Your task to perform on an android device: Open eBay Image 0: 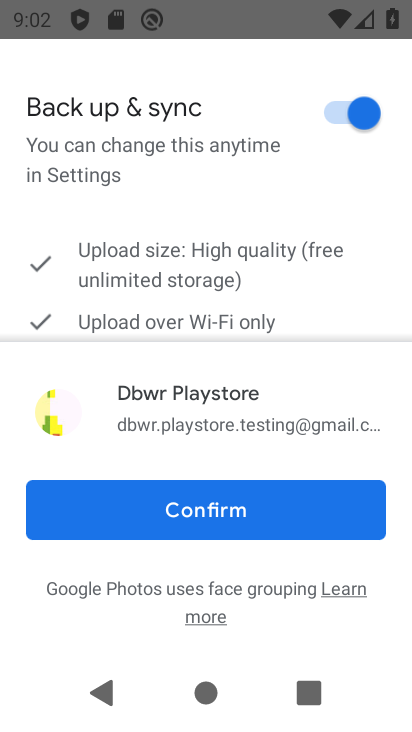
Step 0: press home button
Your task to perform on an android device: Open eBay Image 1: 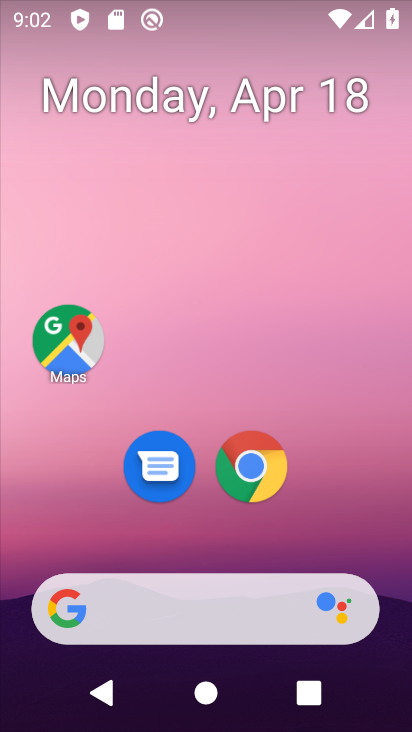
Step 1: click (254, 469)
Your task to perform on an android device: Open eBay Image 2: 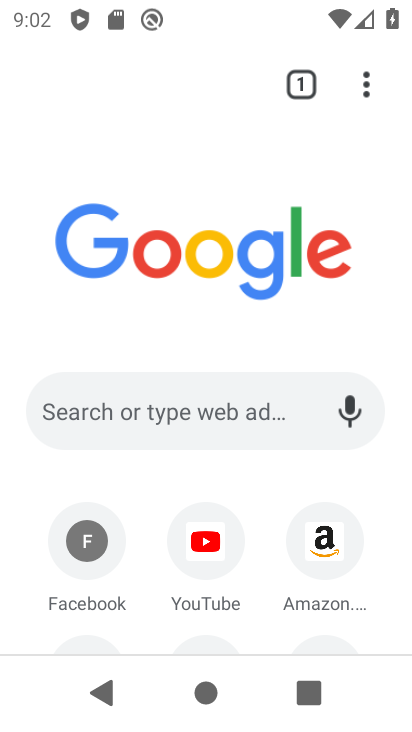
Step 2: drag from (251, 494) to (232, 289)
Your task to perform on an android device: Open eBay Image 3: 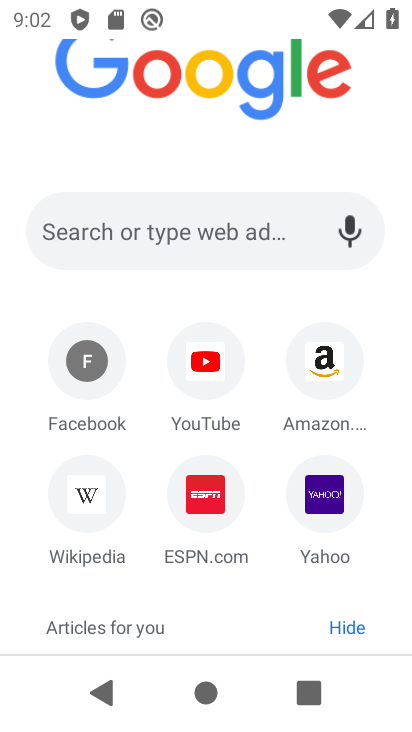
Step 3: click (207, 234)
Your task to perform on an android device: Open eBay Image 4: 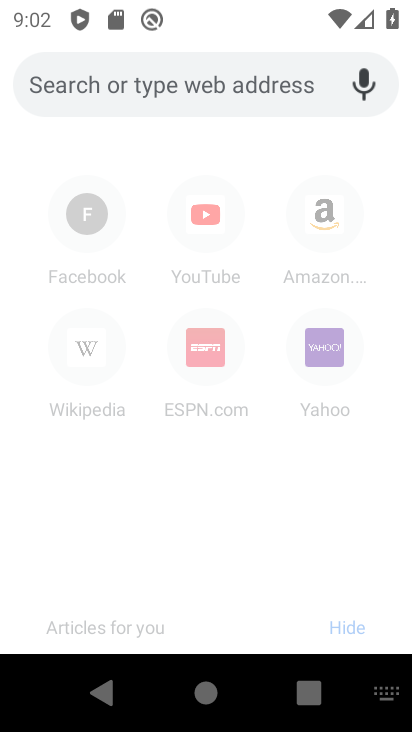
Step 4: type "eBay"
Your task to perform on an android device: Open eBay Image 5: 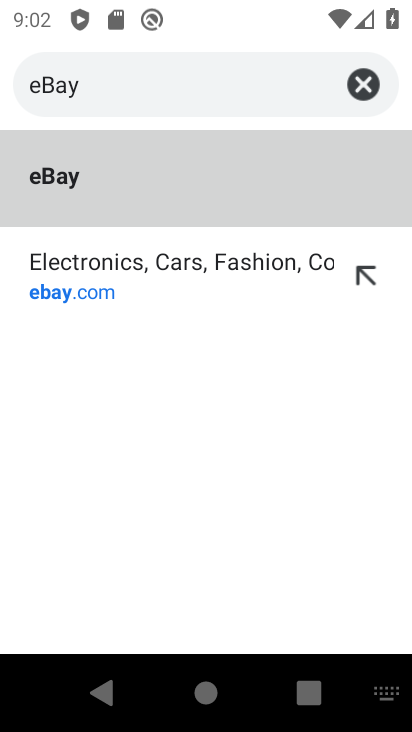
Step 5: click (146, 191)
Your task to perform on an android device: Open eBay Image 6: 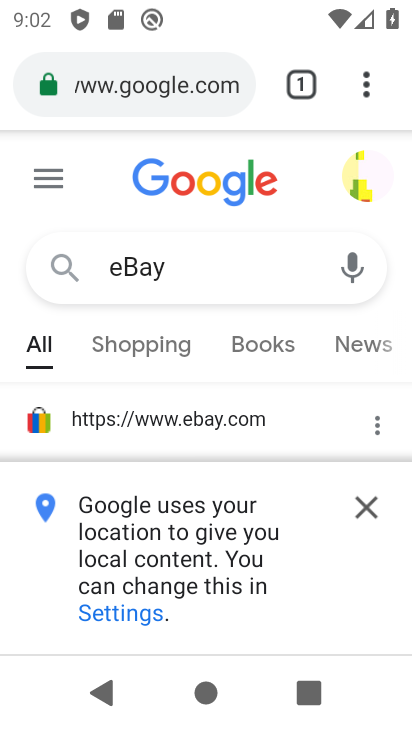
Step 6: click (365, 503)
Your task to perform on an android device: Open eBay Image 7: 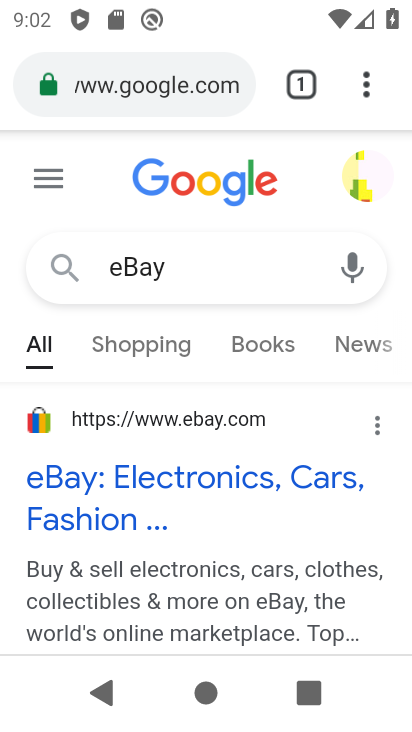
Step 7: click (256, 470)
Your task to perform on an android device: Open eBay Image 8: 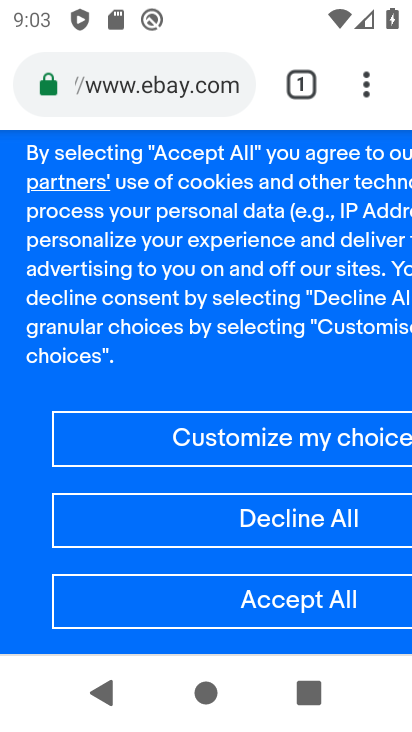
Step 8: task complete